Your task to perform on an android device: Search for seafood restaurants on Google Maps Image 0: 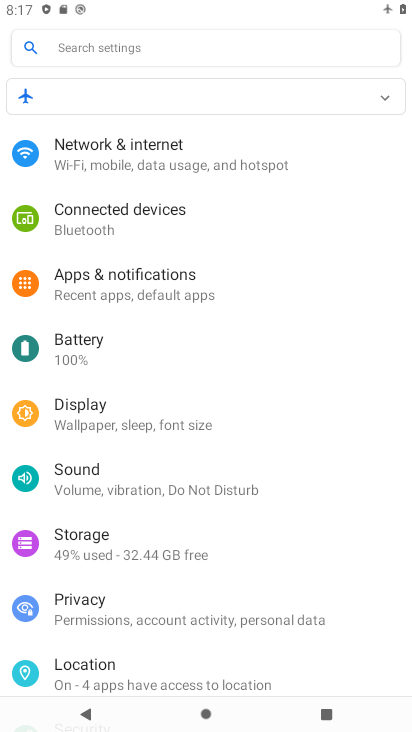
Step 0: press home button
Your task to perform on an android device: Search for seafood restaurants on Google Maps Image 1: 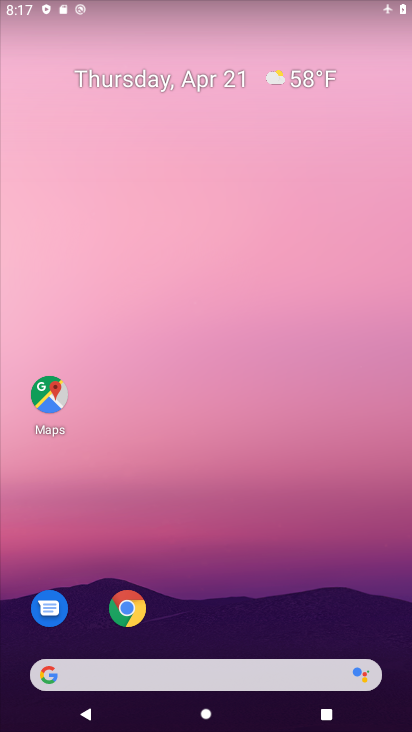
Step 1: click (49, 395)
Your task to perform on an android device: Search for seafood restaurants on Google Maps Image 2: 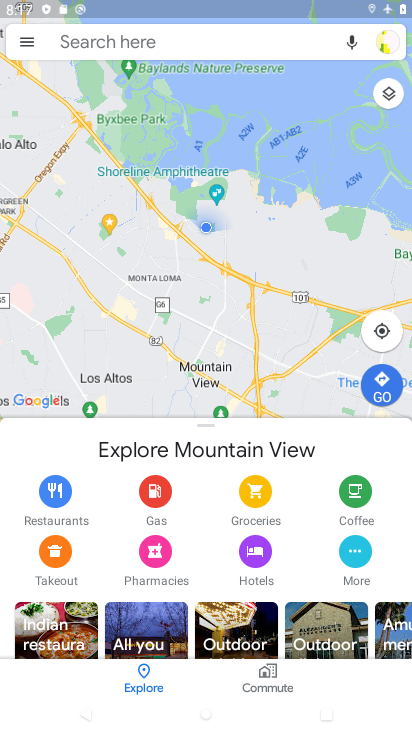
Step 2: click (317, 39)
Your task to perform on an android device: Search for seafood restaurants on Google Maps Image 3: 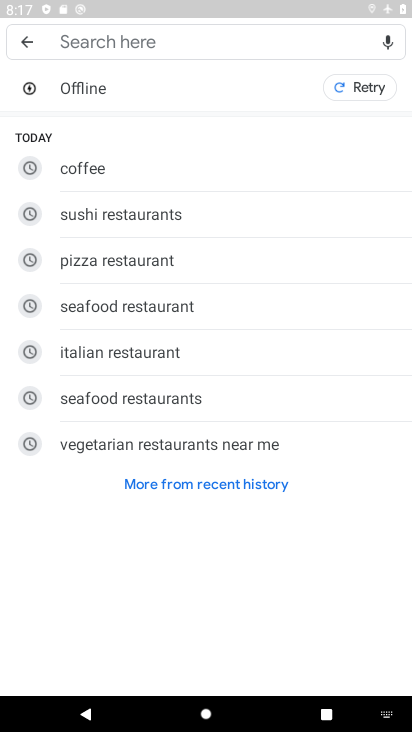
Step 3: click (137, 303)
Your task to perform on an android device: Search for seafood restaurants on Google Maps Image 4: 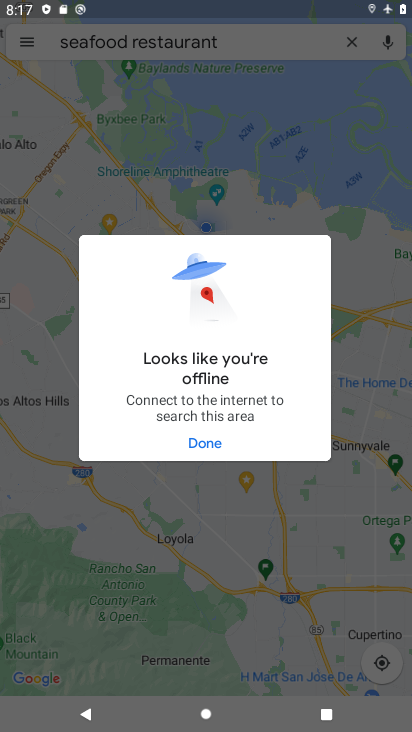
Step 4: task complete